Your task to perform on an android device: choose inbox layout in the gmail app Image 0: 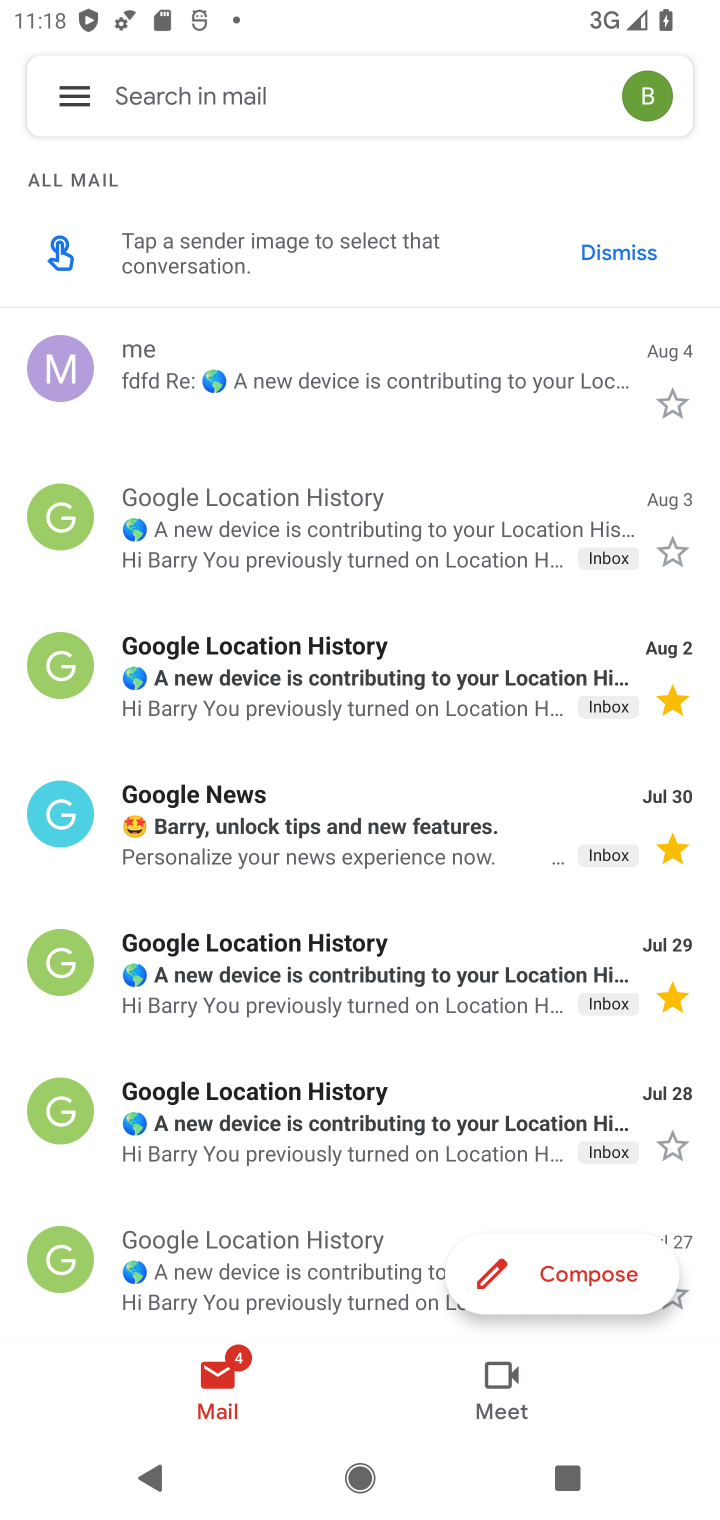
Step 0: press home button
Your task to perform on an android device: choose inbox layout in the gmail app Image 1: 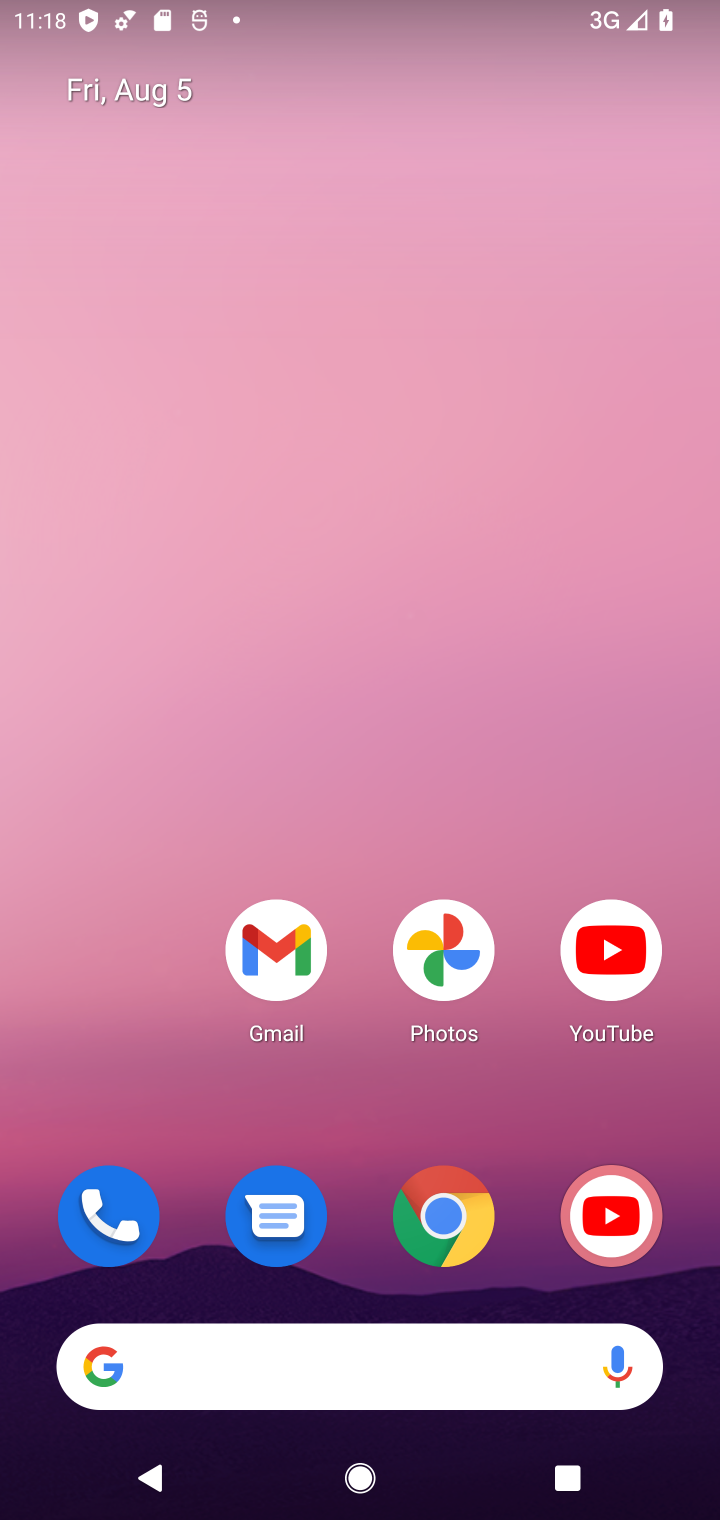
Step 1: drag from (363, 1363) to (391, 285)
Your task to perform on an android device: choose inbox layout in the gmail app Image 2: 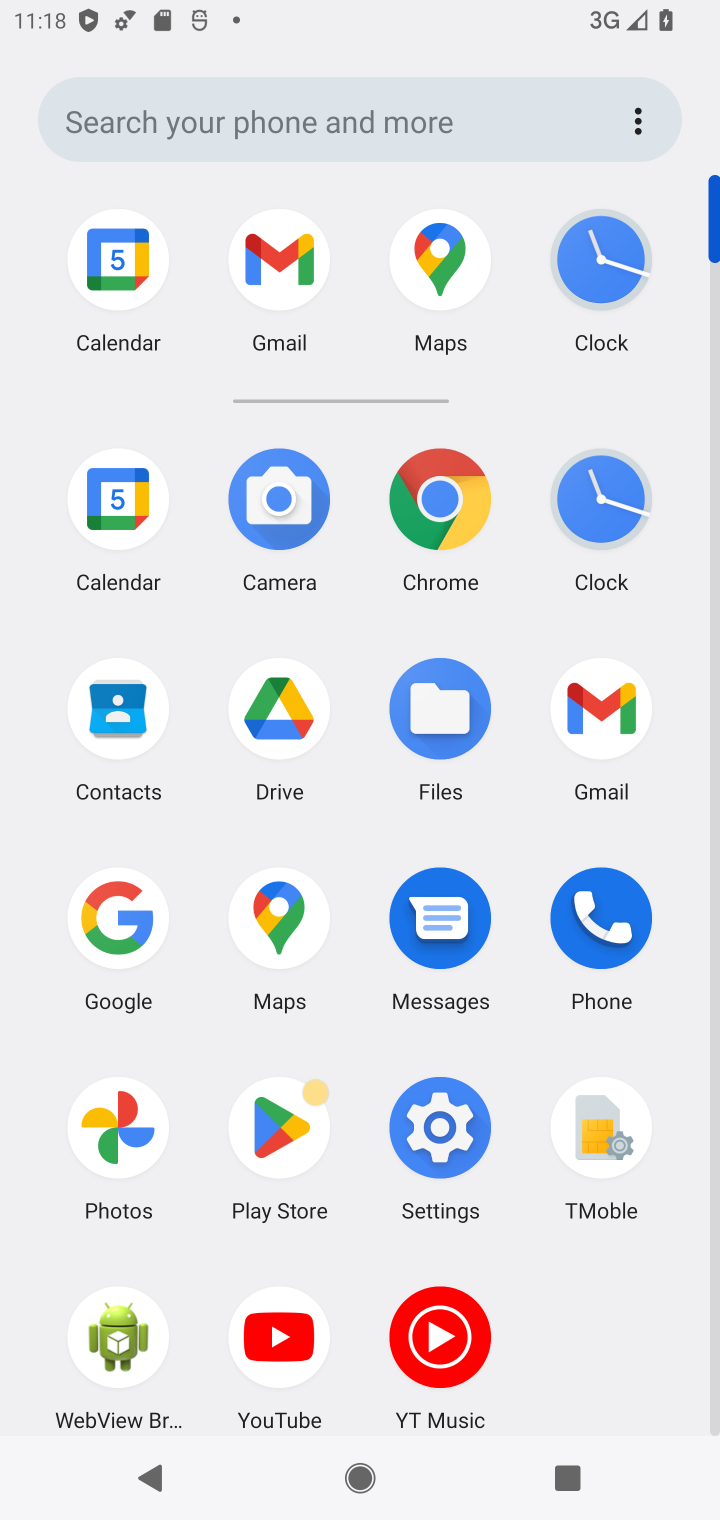
Step 2: click (584, 685)
Your task to perform on an android device: choose inbox layout in the gmail app Image 3: 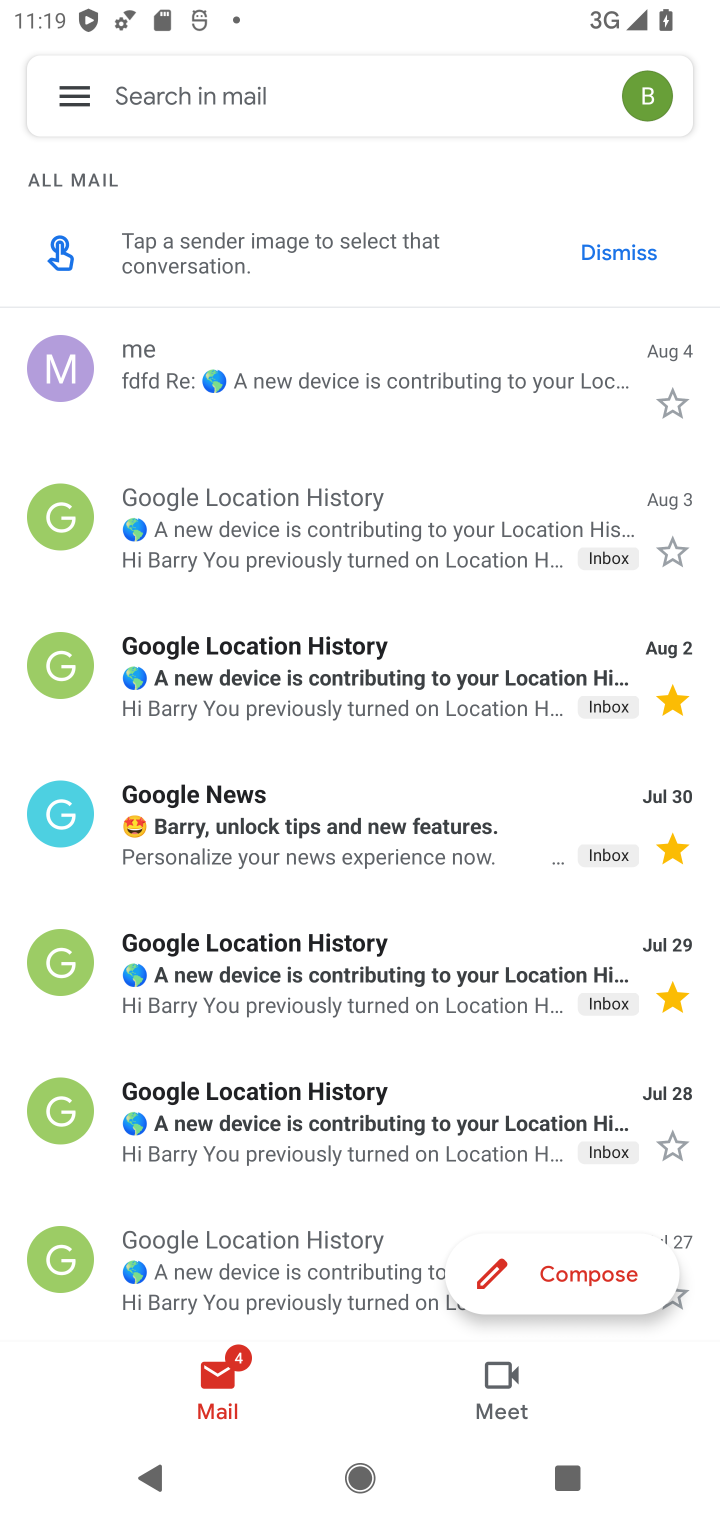
Step 3: click (59, 103)
Your task to perform on an android device: choose inbox layout in the gmail app Image 4: 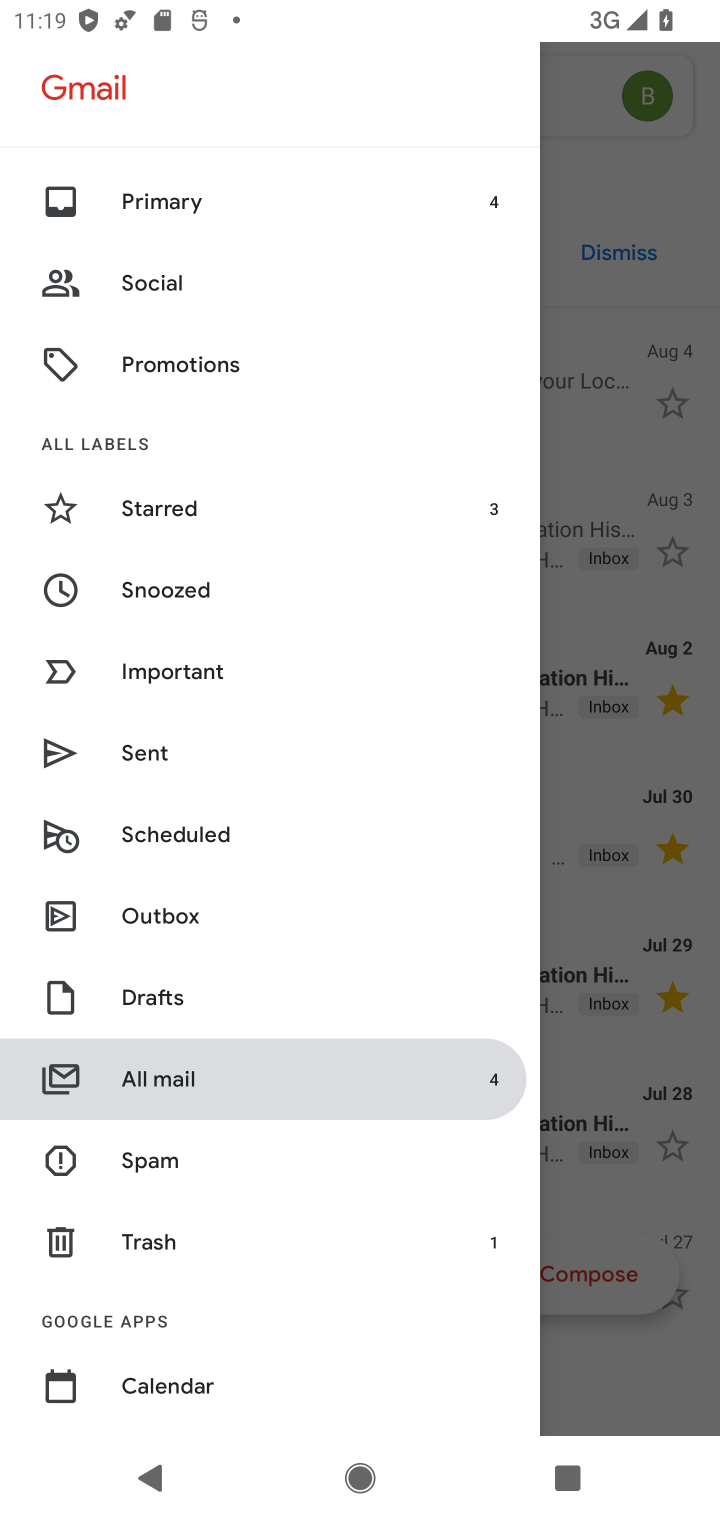
Step 4: drag from (242, 1347) to (273, 402)
Your task to perform on an android device: choose inbox layout in the gmail app Image 5: 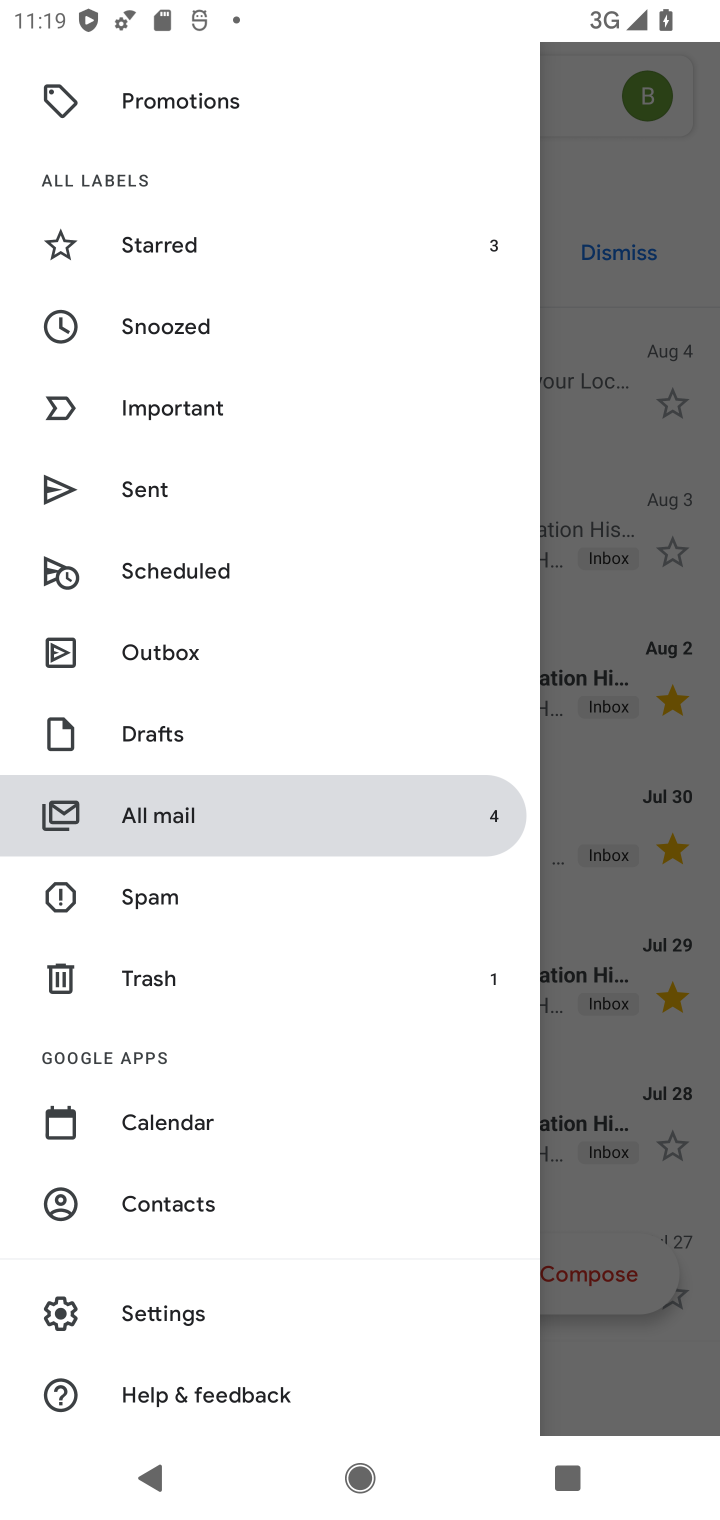
Step 5: click (146, 1308)
Your task to perform on an android device: choose inbox layout in the gmail app Image 6: 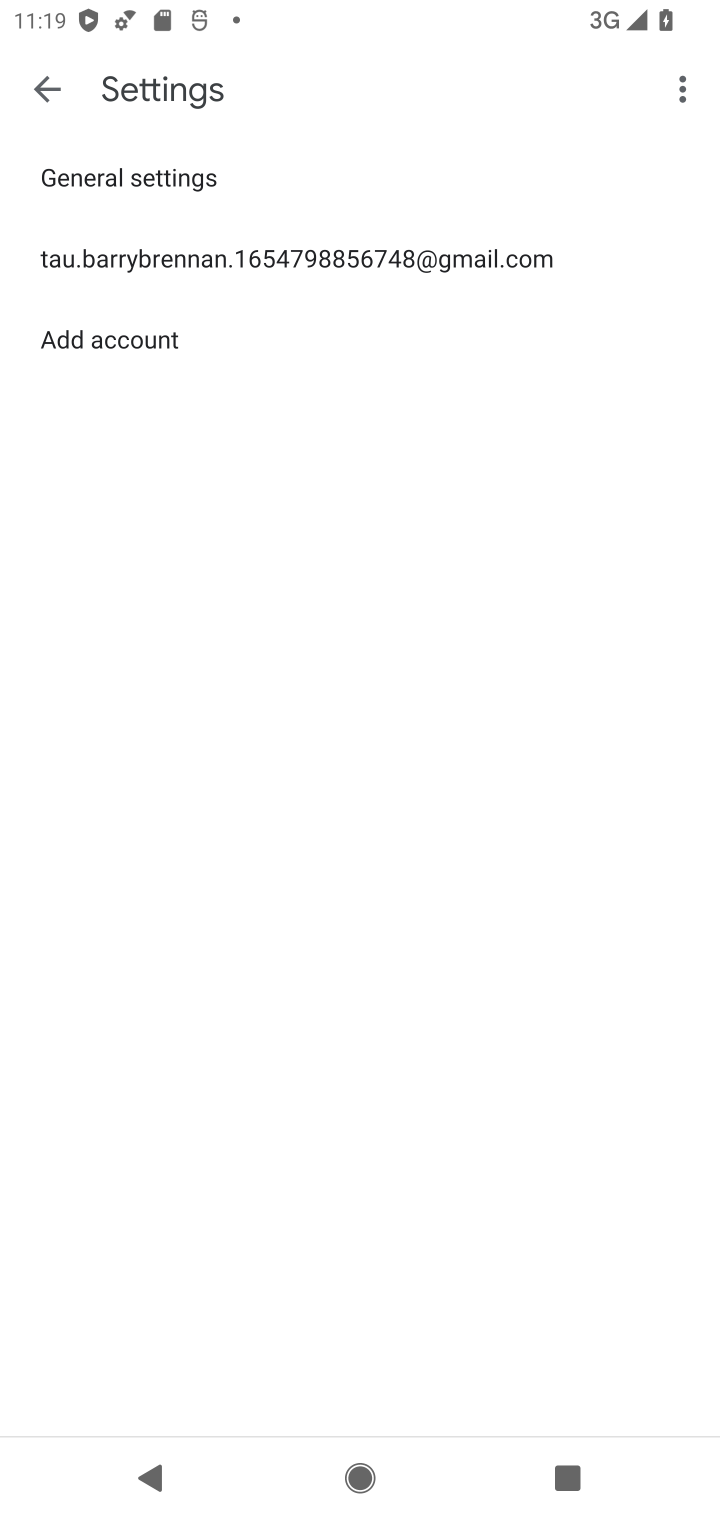
Step 6: click (219, 238)
Your task to perform on an android device: choose inbox layout in the gmail app Image 7: 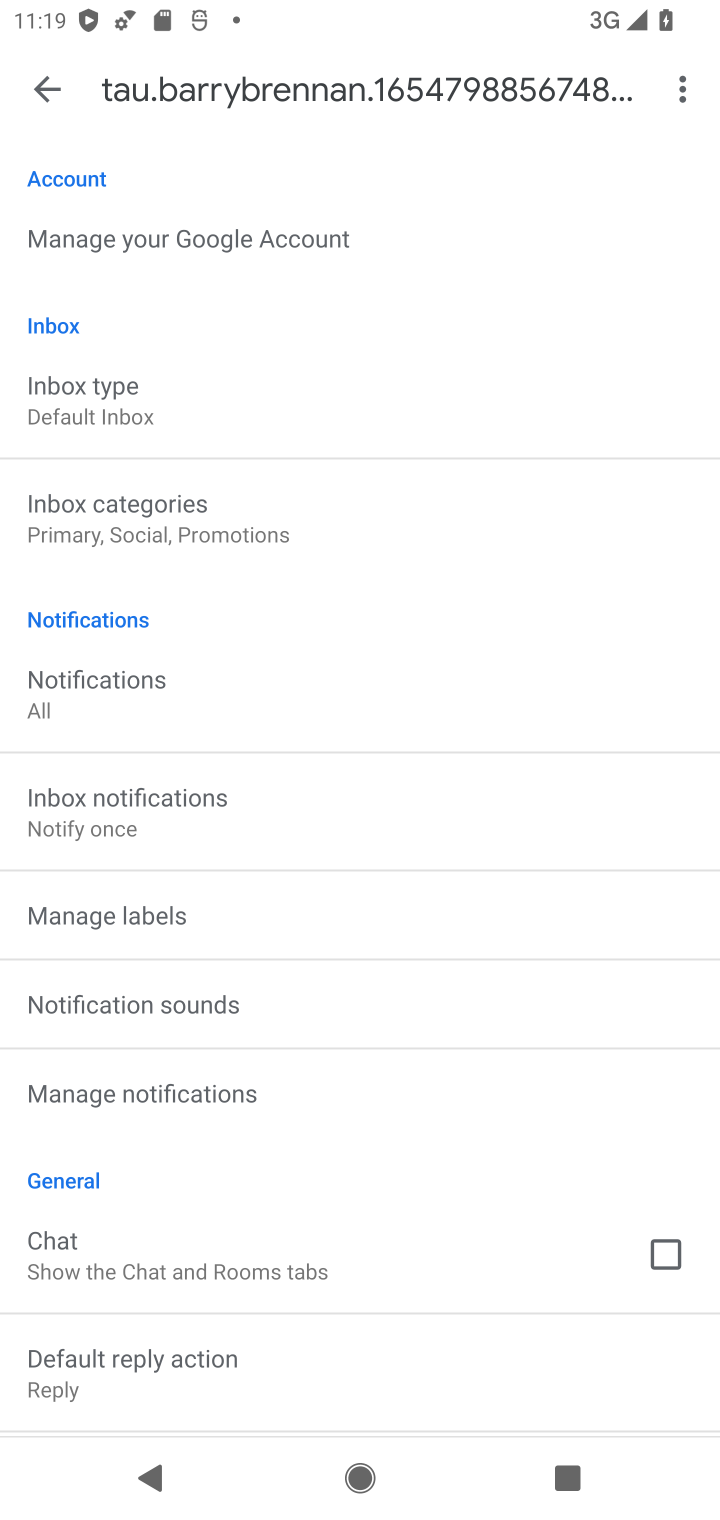
Step 7: click (130, 410)
Your task to perform on an android device: choose inbox layout in the gmail app Image 8: 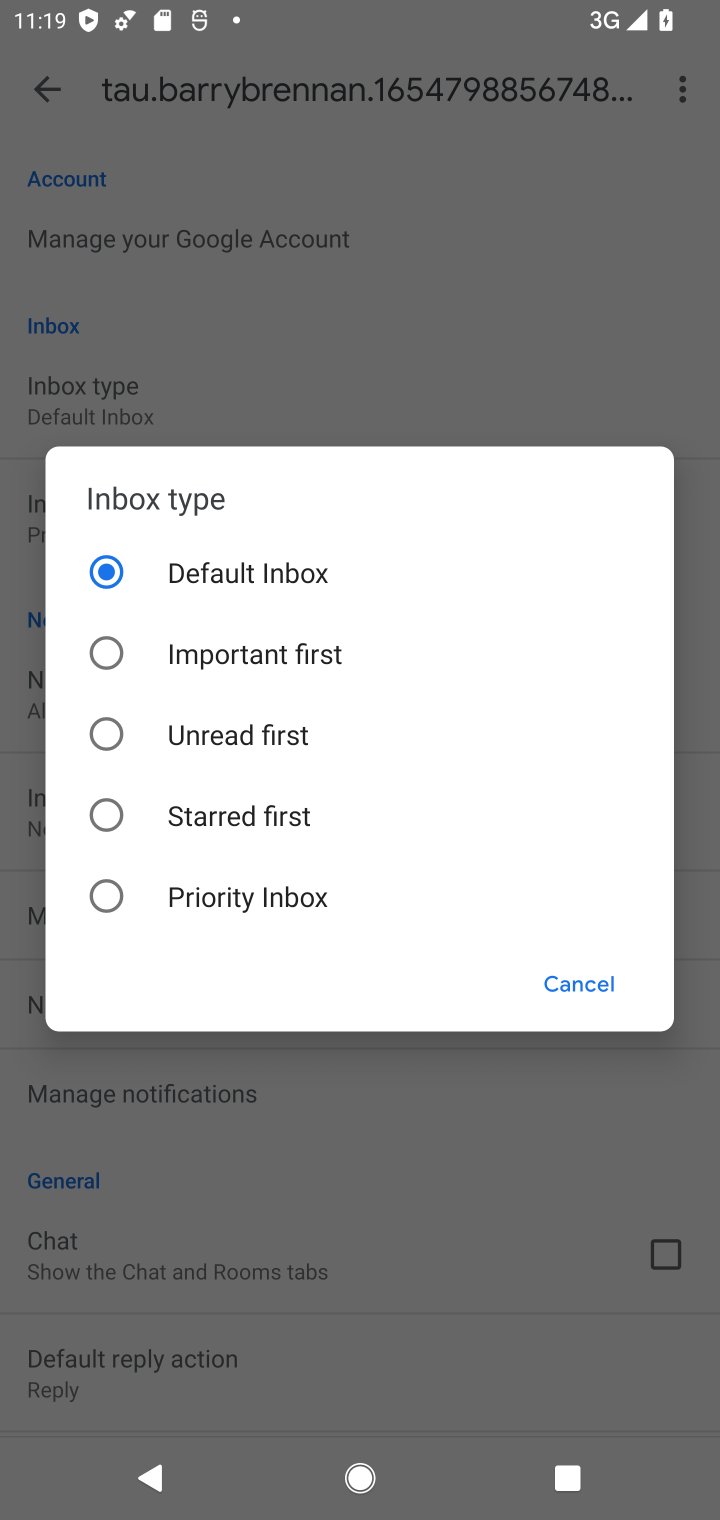
Step 8: click (101, 874)
Your task to perform on an android device: choose inbox layout in the gmail app Image 9: 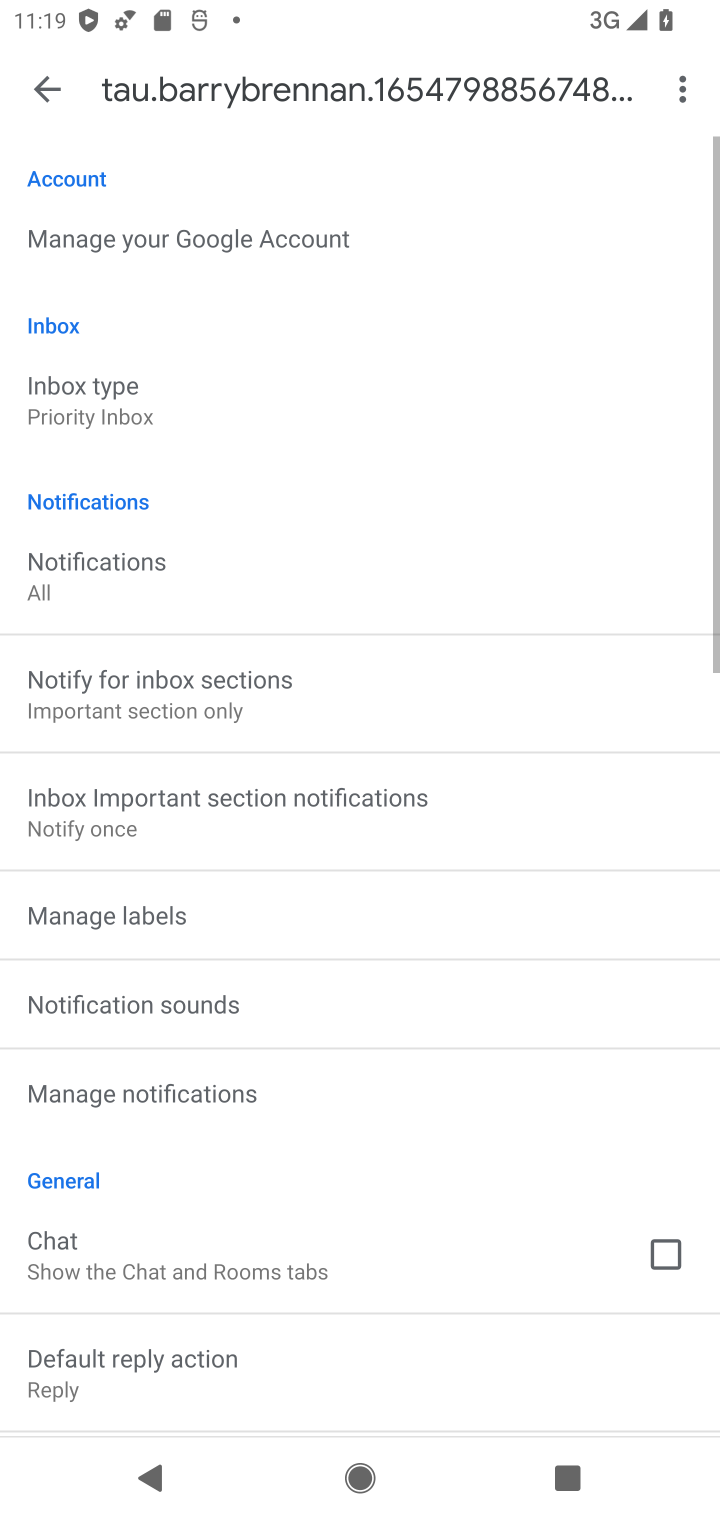
Step 9: task complete